Your task to perform on an android device: Go to sound settings Image 0: 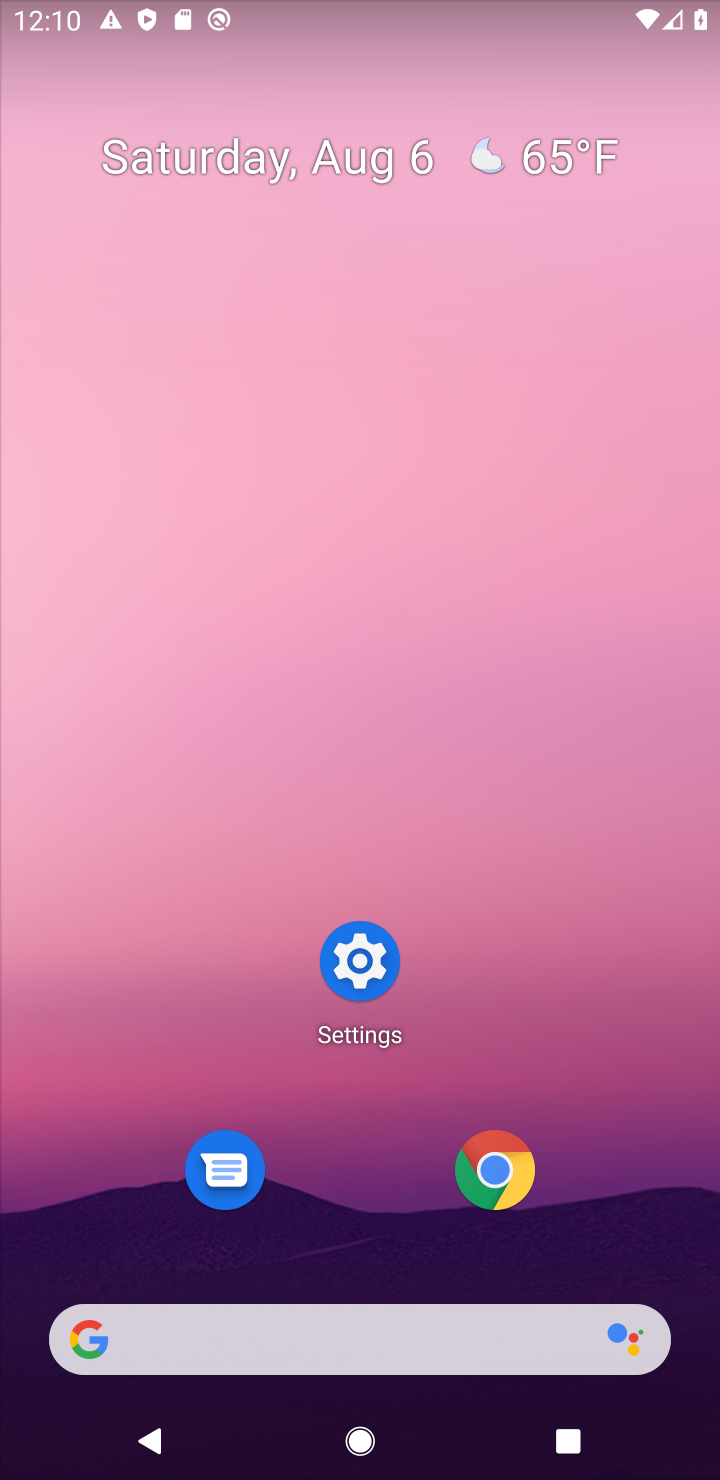
Step 0: drag from (410, 18) to (164, 1046)
Your task to perform on an android device: Go to sound settings Image 1: 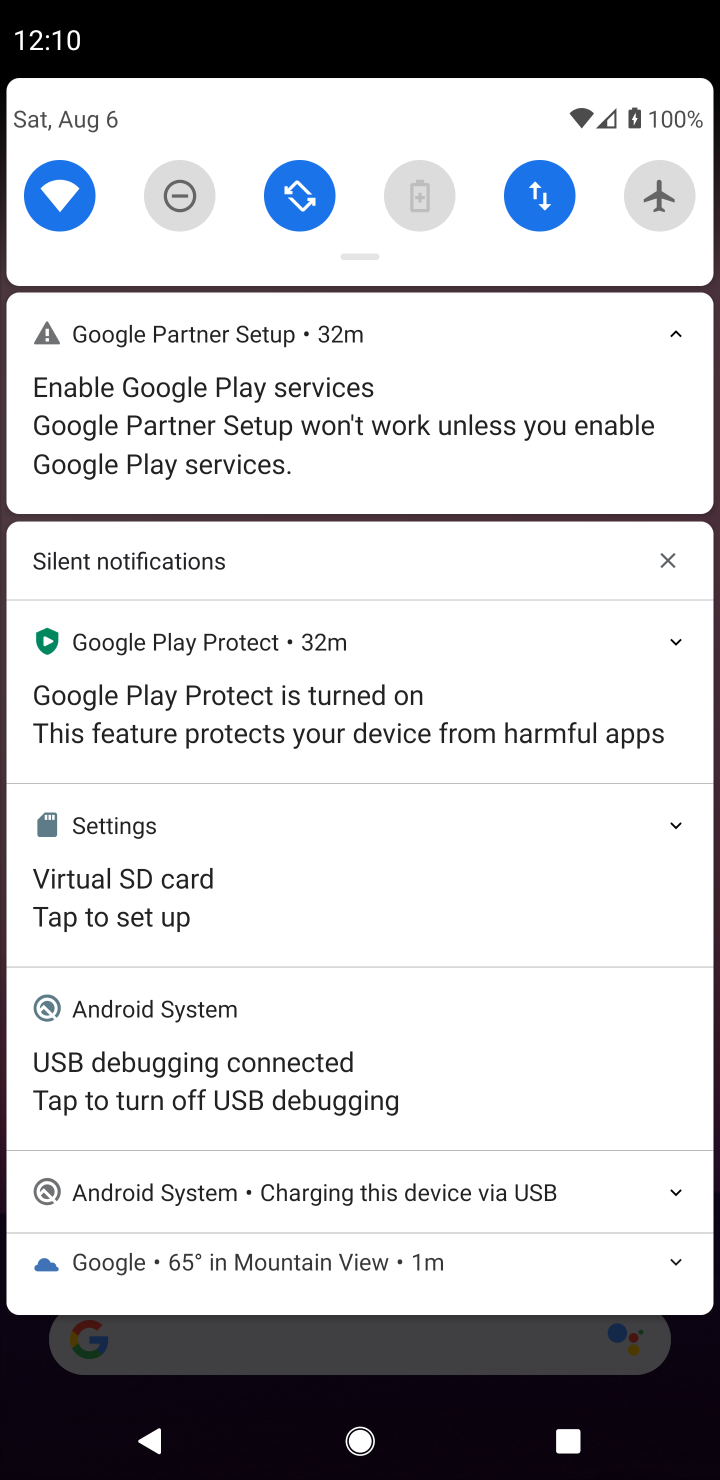
Step 1: click (60, 182)
Your task to perform on an android device: Go to sound settings Image 2: 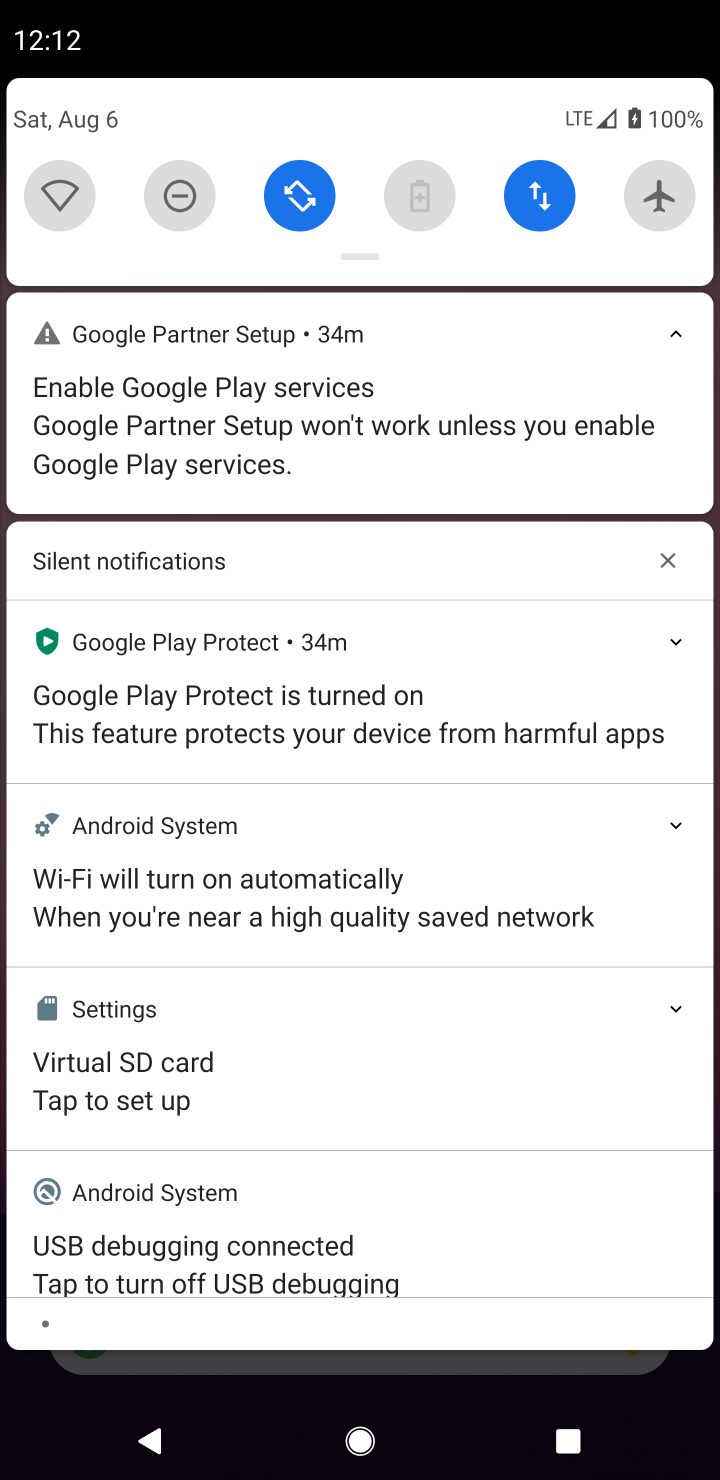
Step 2: click (343, 1456)
Your task to perform on an android device: Go to sound settings Image 3: 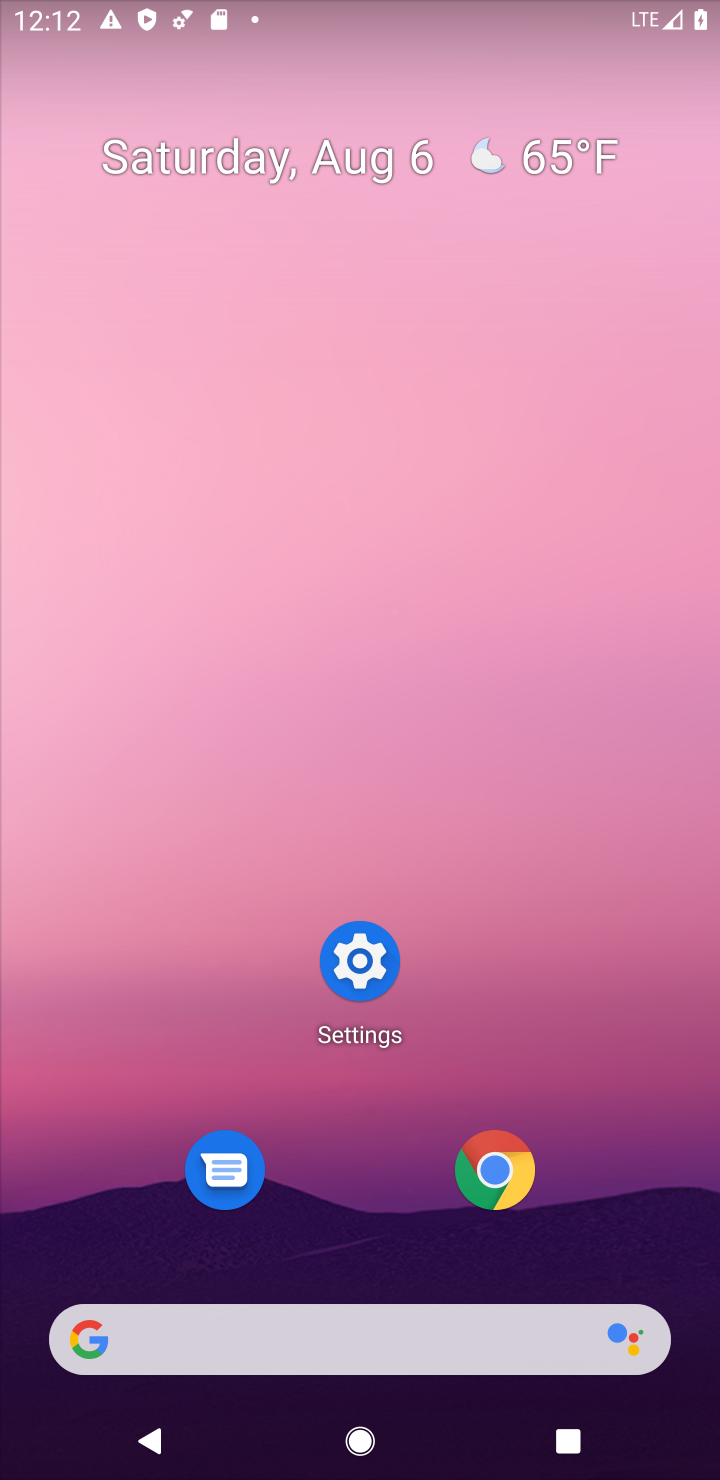
Step 3: click (357, 958)
Your task to perform on an android device: Go to sound settings Image 4: 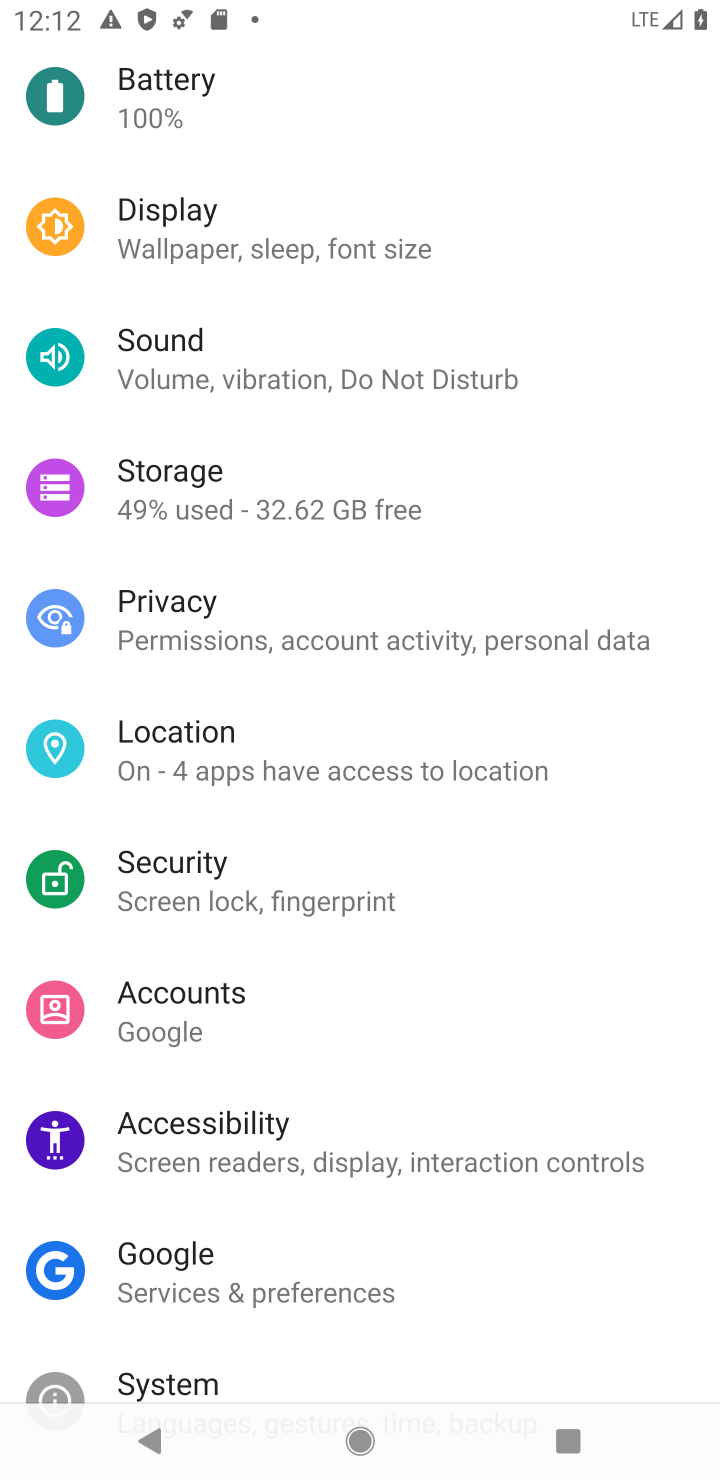
Step 4: click (166, 366)
Your task to perform on an android device: Go to sound settings Image 5: 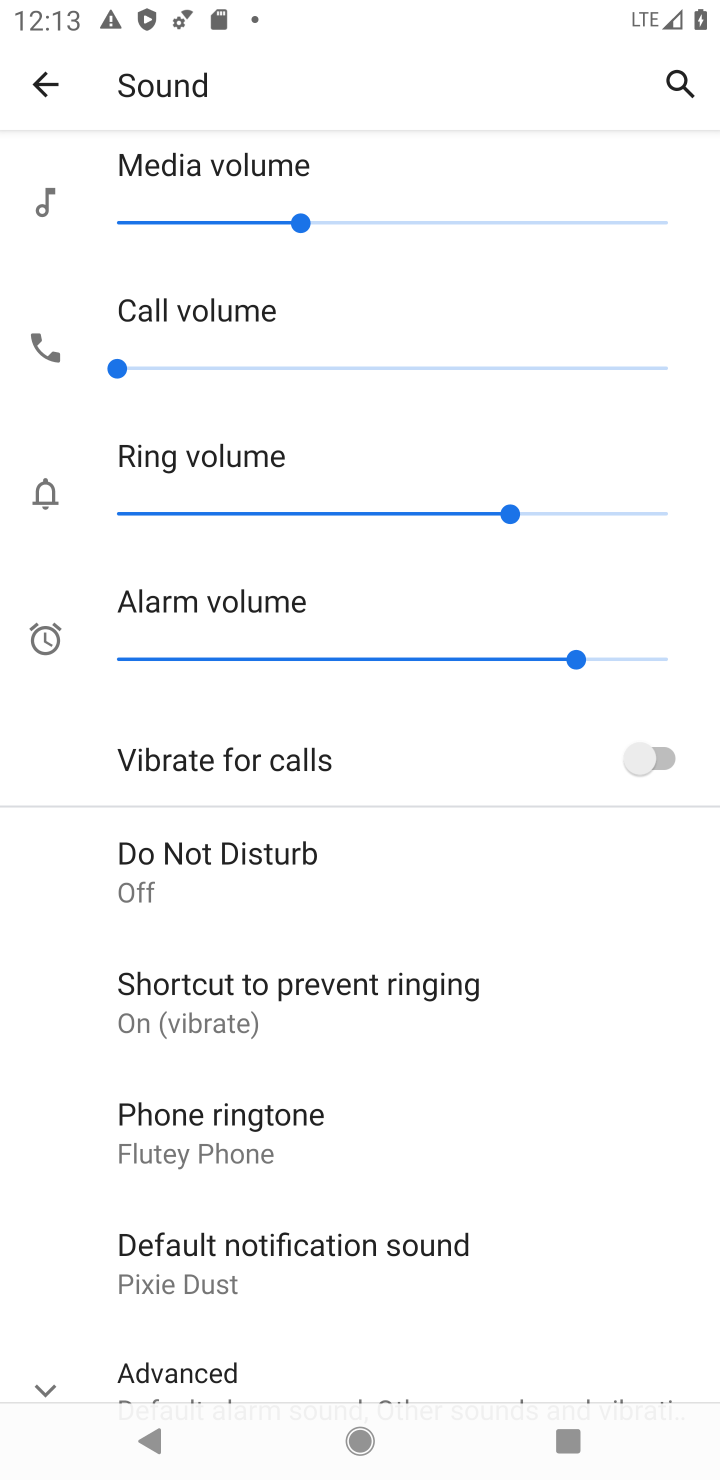
Step 5: task complete